Your task to perform on an android device: turn off data saver in the chrome app Image 0: 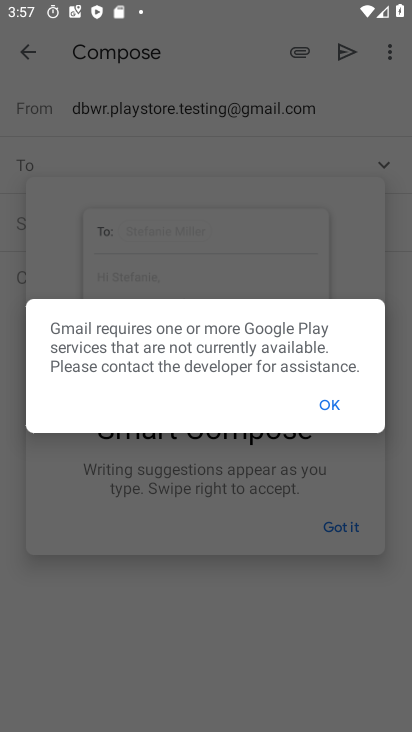
Step 0: press home button
Your task to perform on an android device: turn off data saver in the chrome app Image 1: 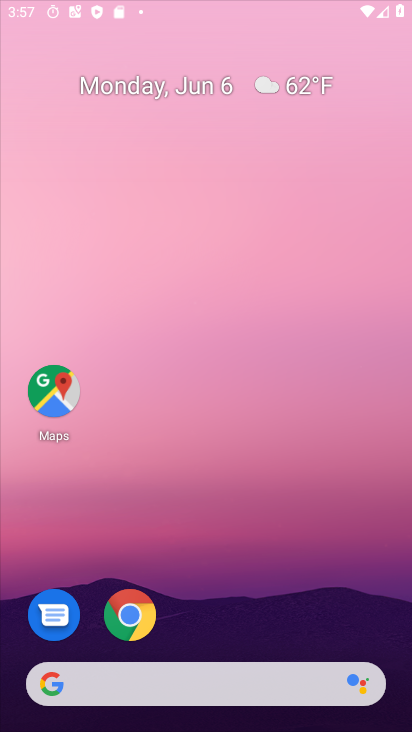
Step 1: click (340, 95)
Your task to perform on an android device: turn off data saver in the chrome app Image 2: 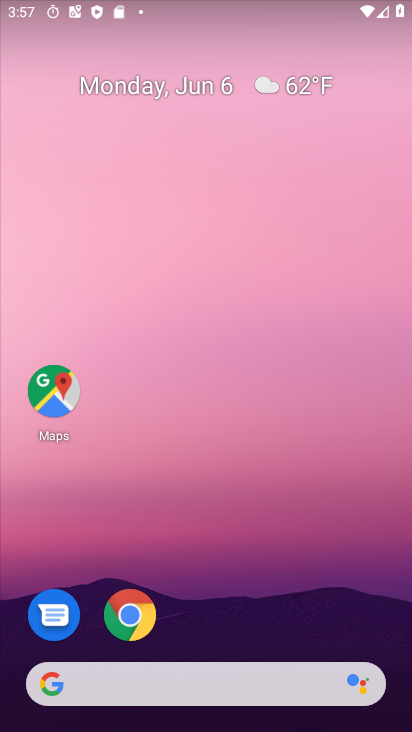
Step 2: drag from (210, 642) to (236, 145)
Your task to perform on an android device: turn off data saver in the chrome app Image 3: 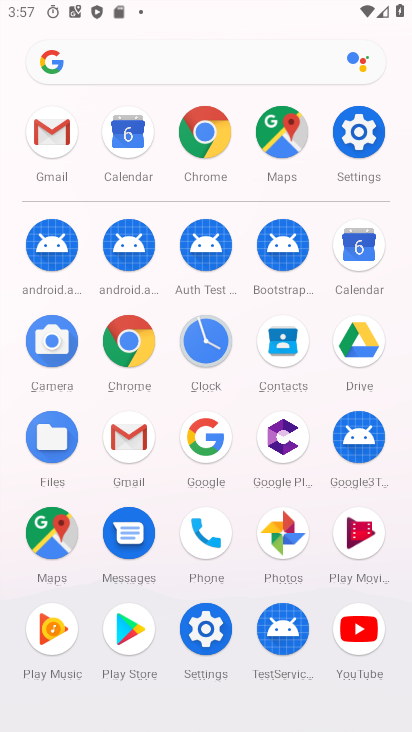
Step 3: click (133, 330)
Your task to perform on an android device: turn off data saver in the chrome app Image 4: 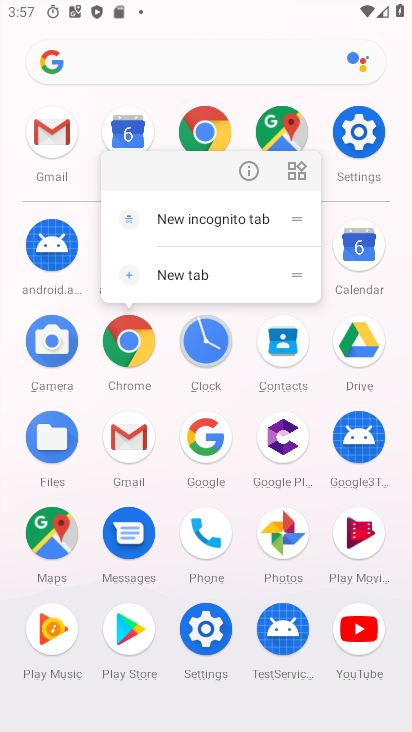
Step 4: click (353, 128)
Your task to perform on an android device: turn off data saver in the chrome app Image 5: 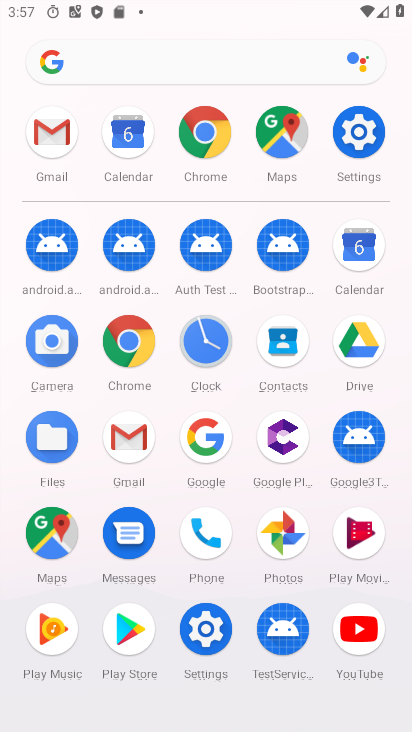
Step 5: click (120, 350)
Your task to perform on an android device: turn off data saver in the chrome app Image 6: 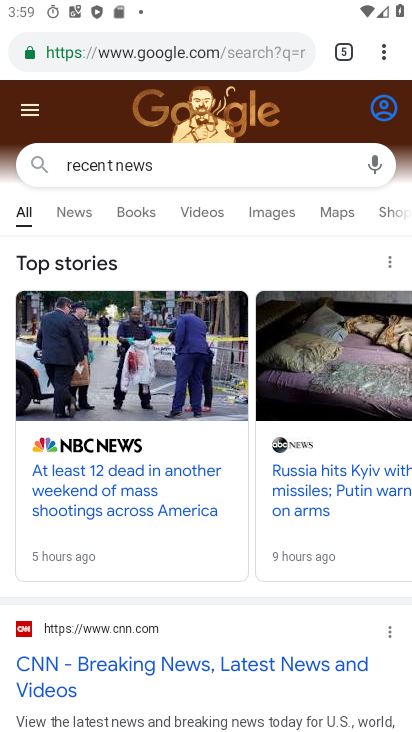
Step 6: drag from (380, 44) to (211, 586)
Your task to perform on an android device: turn off data saver in the chrome app Image 7: 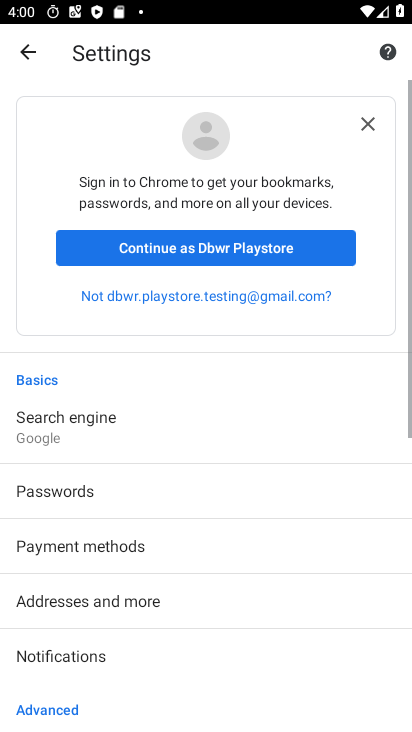
Step 7: drag from (236, 604) to (298, 15)
Your task to perform on an android device: turn off data saver in the chrome app Image 8: 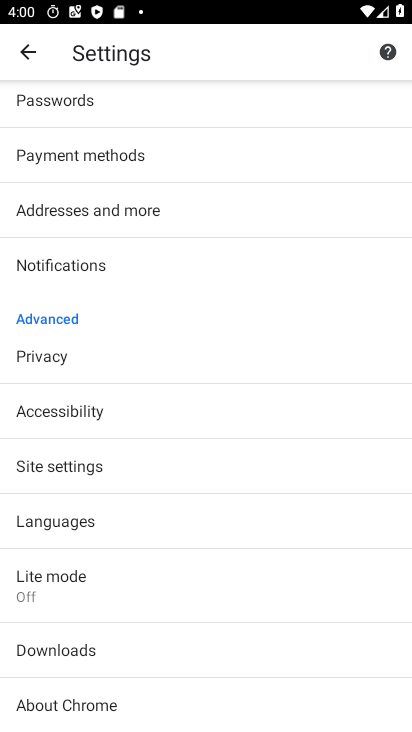
Step 8: click (81, 586)
Your task to perform on an android device: turn off data saver in the chrome app Image 9: 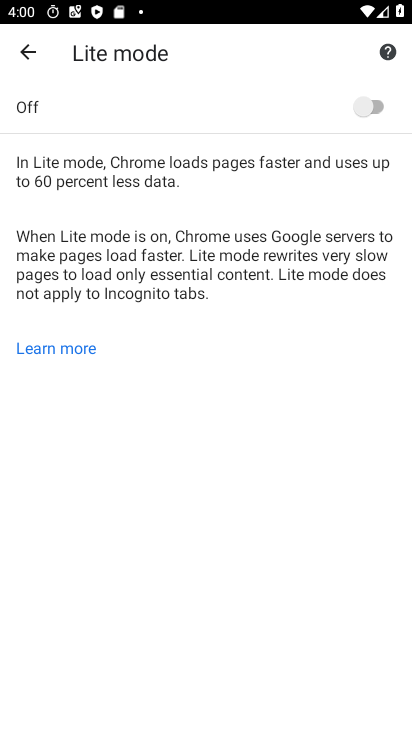
Step 9: task complete